Your task to perform on an android device: open chrome and create a bookmark for the current page Image 0: 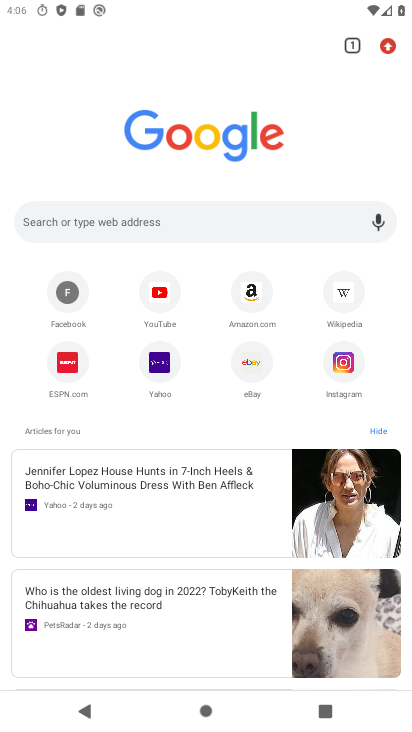
Step 0: drag from (388, 44) to (257, 47)
Your task to perform on an android device: open chrome and create a bookmark for the current page Image 1: 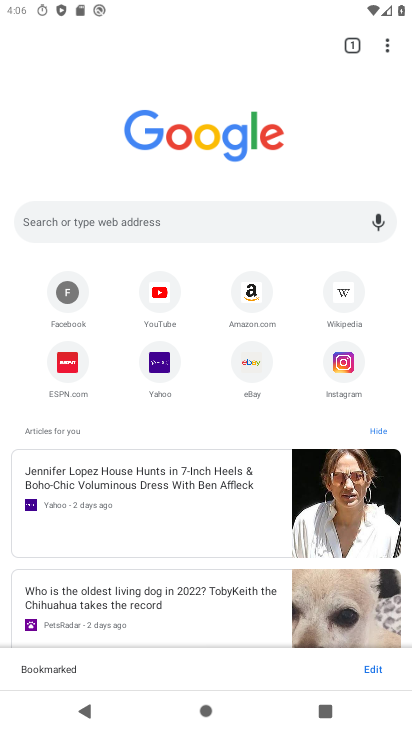
Step 1: task complete